Your task to perform on an android device: change keyboard looks Image 0: 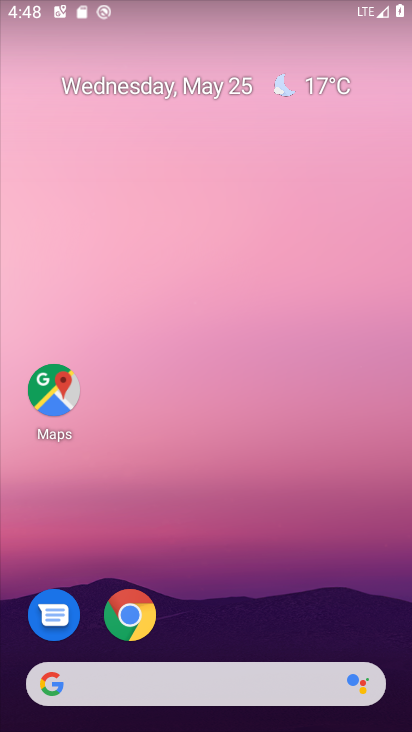
Step 0: drag from (198, 100) to (192, 51)
Your task to perform on an android device: change keyboard looks Image 1: 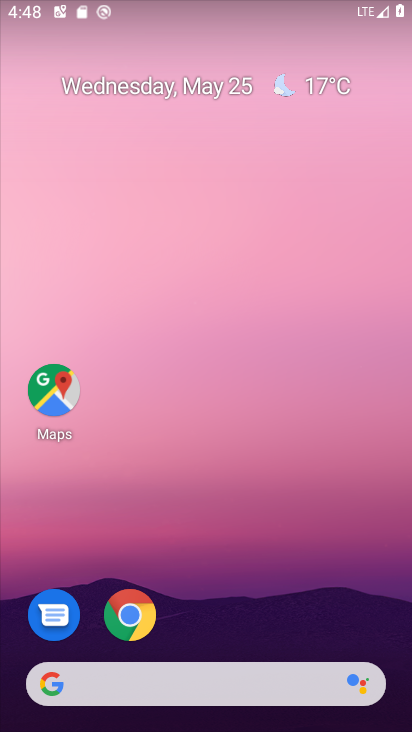
Step 1: drag from (312, 540) to (209, 6)
Your task to perform on an android device: change keyboard looks Image 2: 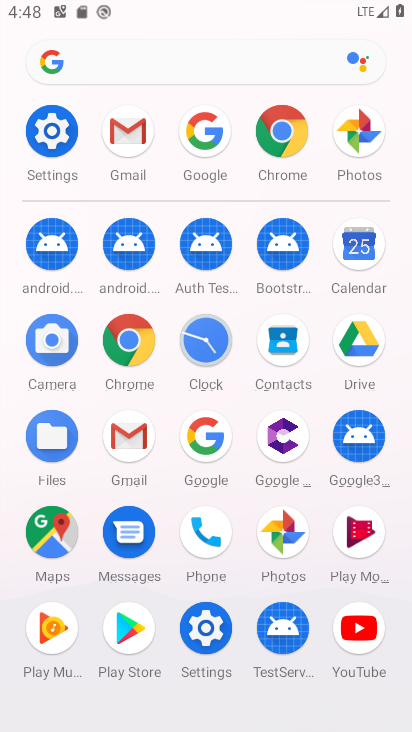
Step 2: click (51, 124)
Your task to perform on an android device: change keyboard looks Image 3: 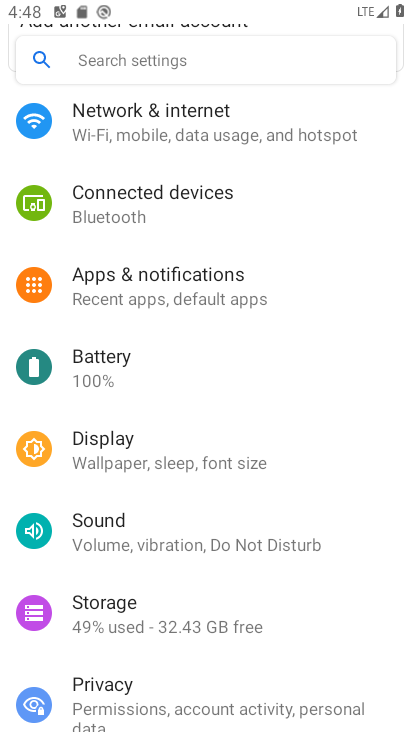
Step 3: drag from (236, 624) to (233, 41)
Your task to perform on an android device: change keyboard looks Image 4: 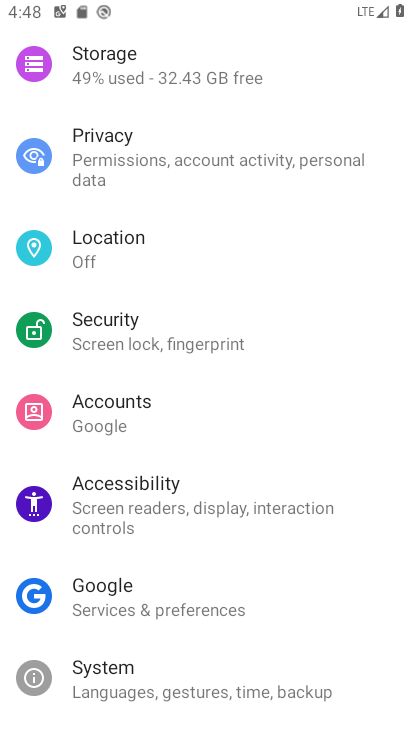
Step 4: click (233, 681)
Your task to perform on an android device: change keyboard looks Image 5: 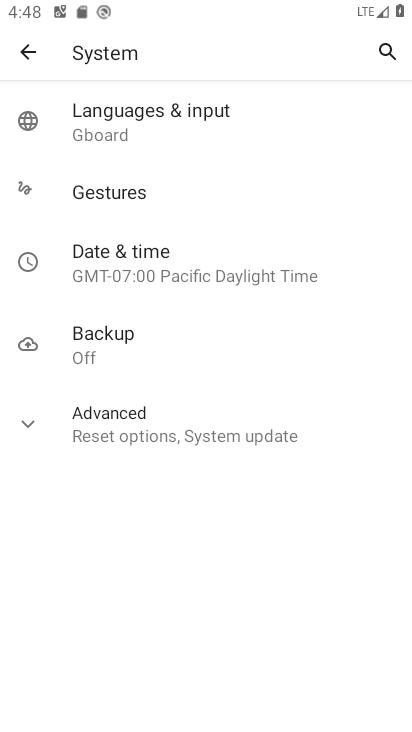
Step 5: click (171, 134)
Your task to perform on an android device: change keyboard looks Image 6: 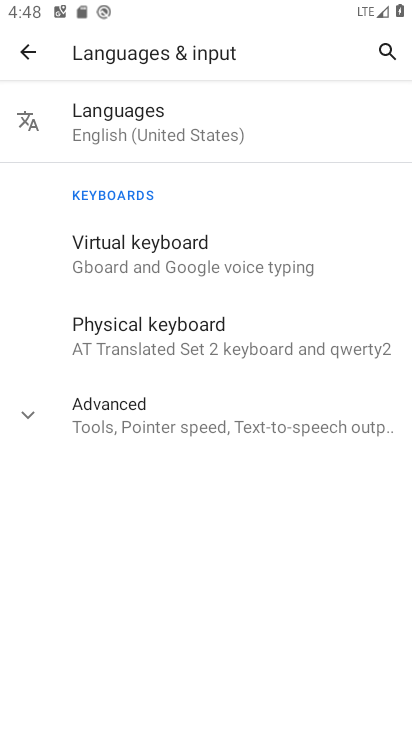
Step 6: click (210, 265)
Your task to perform on an android device: change keyboard looks Image 7: 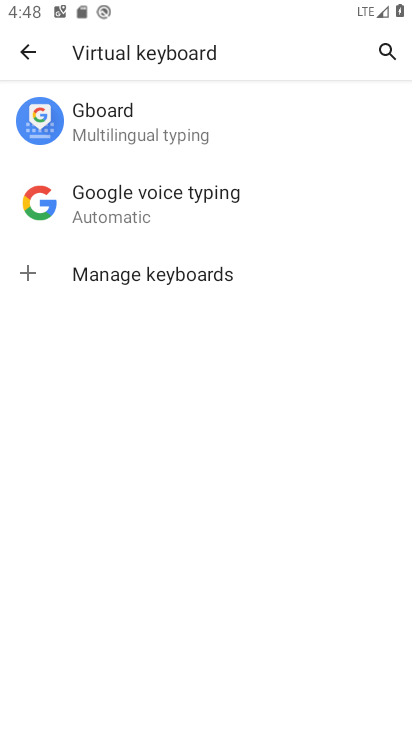
Step 7: click (169, 121)
Your task to perform on an android device: change keyboard looks Image 8: 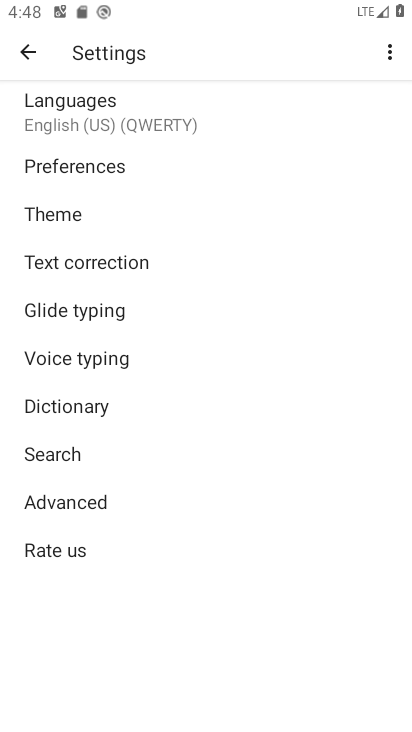
Step 8: click (95, 216)
Your task to perform on an android device: change keyboard looks Image 9: 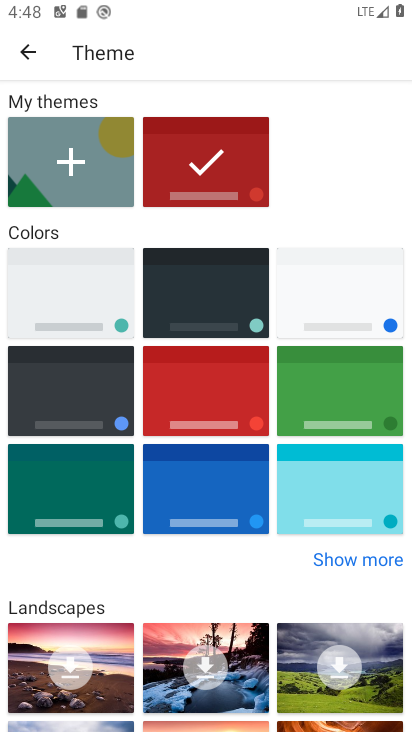
Step 9: click (209, 464)
Your task to perform on an android device: change keyboard looks Image 10: 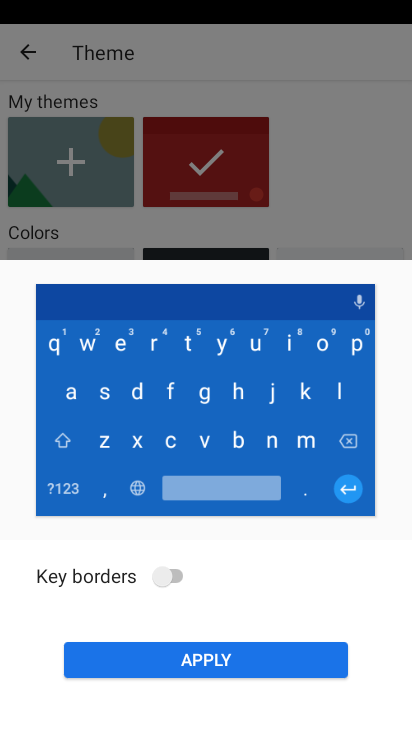
Step 10: click (283, 659)
Your task to perform on an android device: change keyboard looks Image 11: 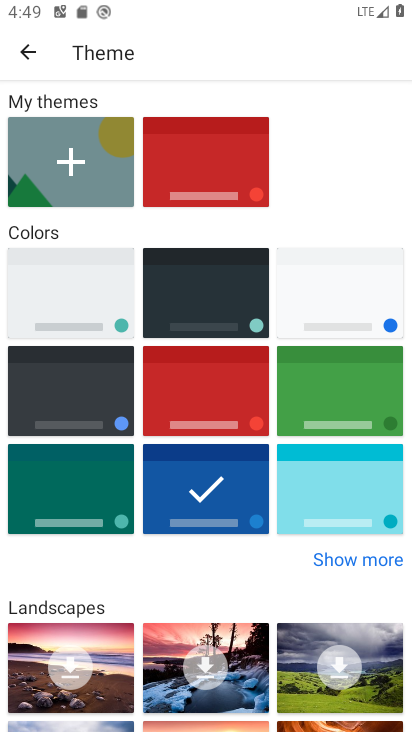
Step 11: task complete